Your task to perform on an android device: move a message to another label in the gmail app Image 0: 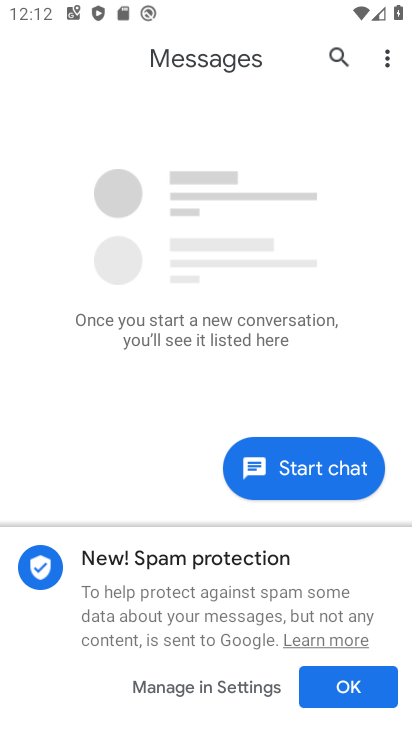
Step 0: press back button
Your task to perform on an android device: move a message to another label in the gmail app Image 1: 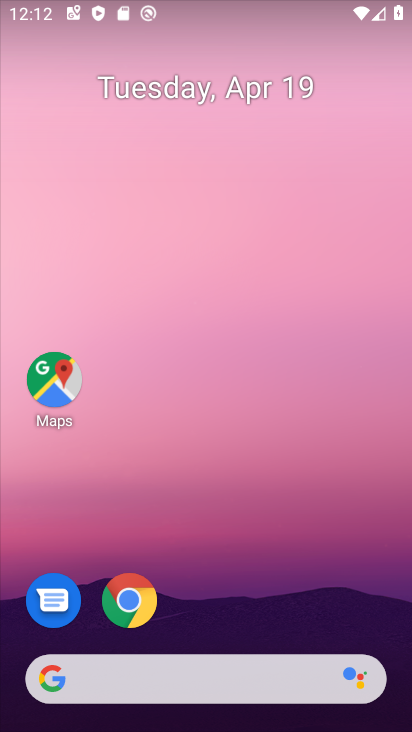
Step 1: drag from (176, 455) to (140, 135)
Your task to perform on an android device: move a message to another label in the gmail app Image 2: 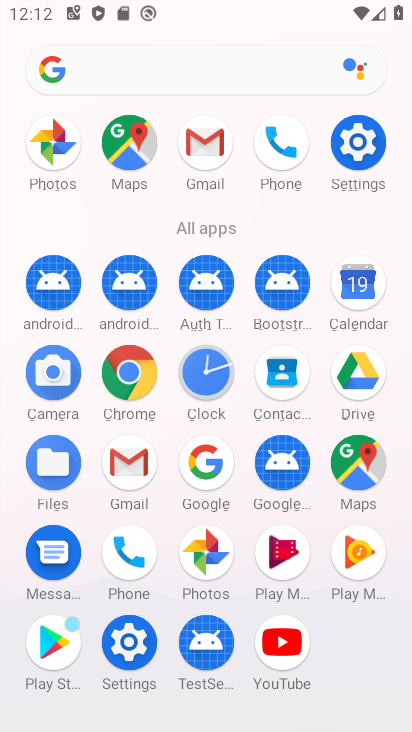
Step 2: click (126, 447)
Your task to perform on an android device: move a message to another label in the gmail app Image 3: 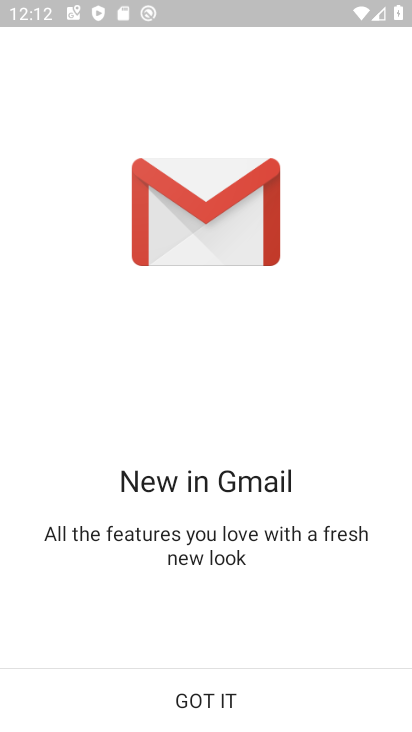
Step 3: click (164, 695)
Your task to perform on an android device: move a message to another label in the gmail app Image 4: 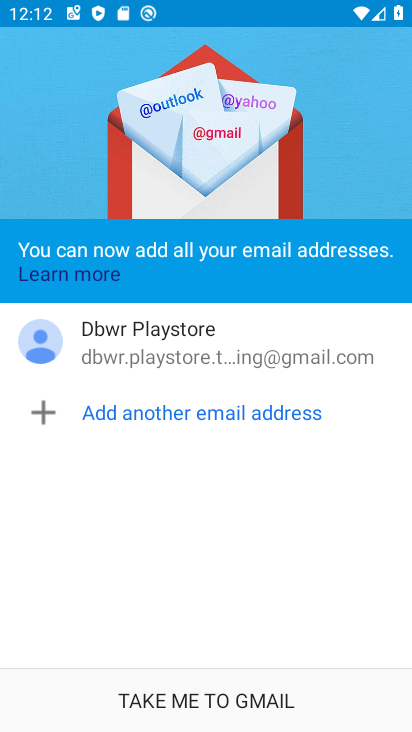
Step 4: click (164, 695)
Your task to perform on an android device: move a message to another label in the gmail app Image 5: 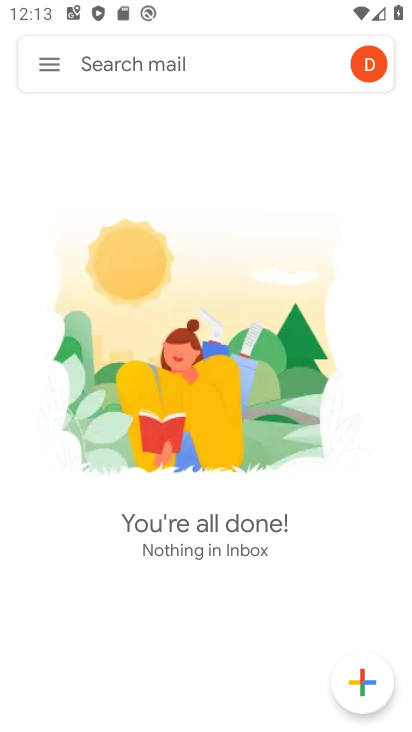
Step 5: click (49, 73)
Your task to perform on an android device: move a message to another label in the gmail app Image 6: 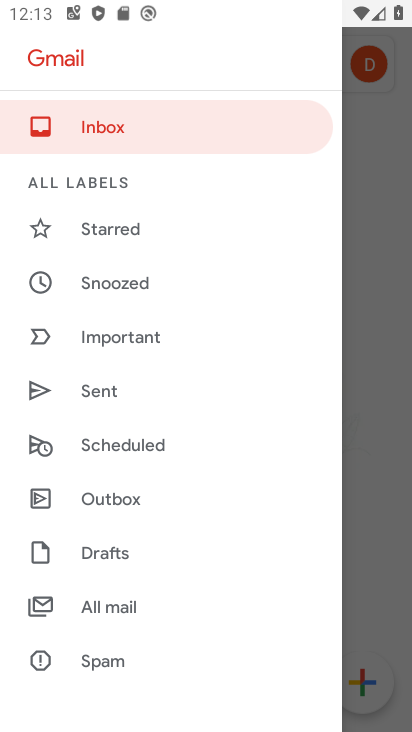
Step 6: click (111, 591)
Your task to perform on an android device: move a message to another label in the gmail app Image 7: 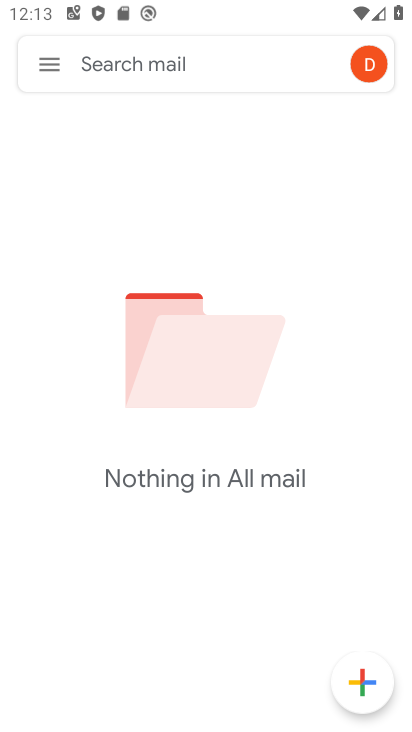
Step 7: task complete